Your task to perform on an android device: see creations saved in the google photos Image 0: 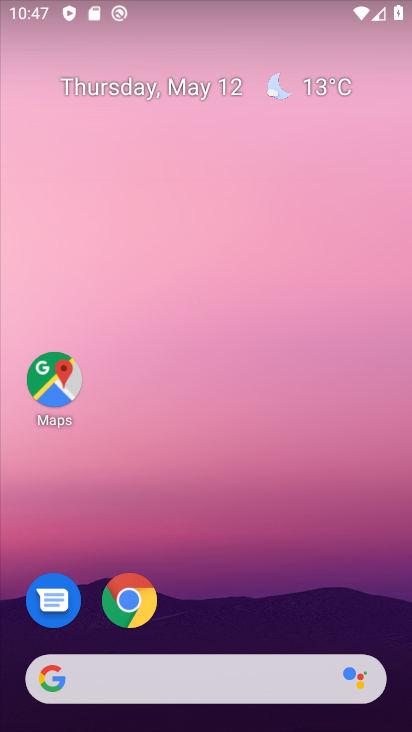
Step 0: drag from (378, 624) to (329, 63)
Your task to perform on an android device: see creations saved in the google photos Image 1: 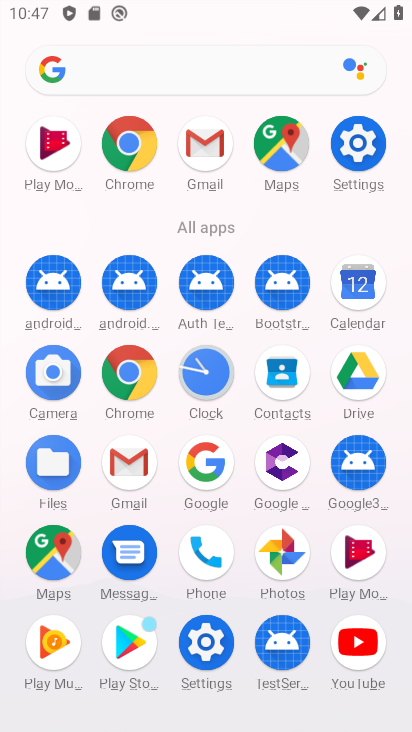
Step 1: click (283, 555)
Your task to perform on an android device: see creations saved in the google photos Image 2: 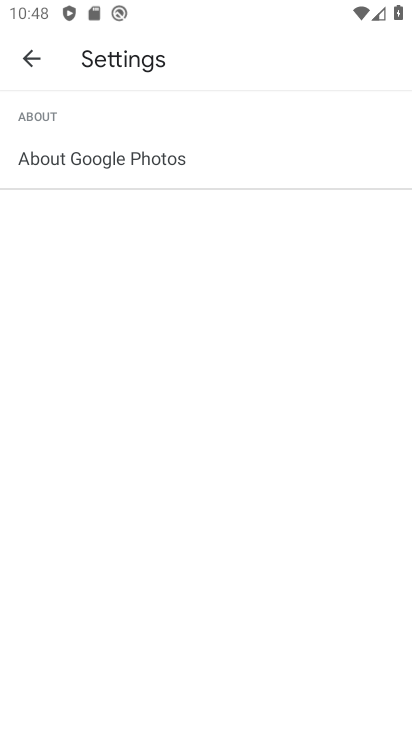
Step 2: press home button
Your task to perform on an android device: see creations saved in the google photos Image 3: 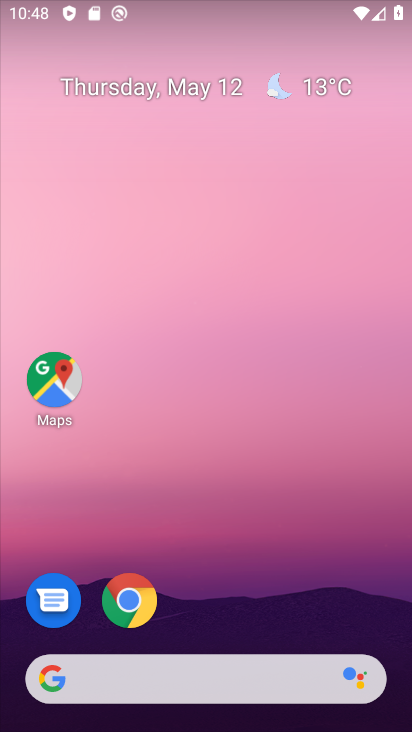
Step 3: drag from (365, 612) to (357, 127)
Your task to perform on an android device: see creations saved in the google photos Image 4: 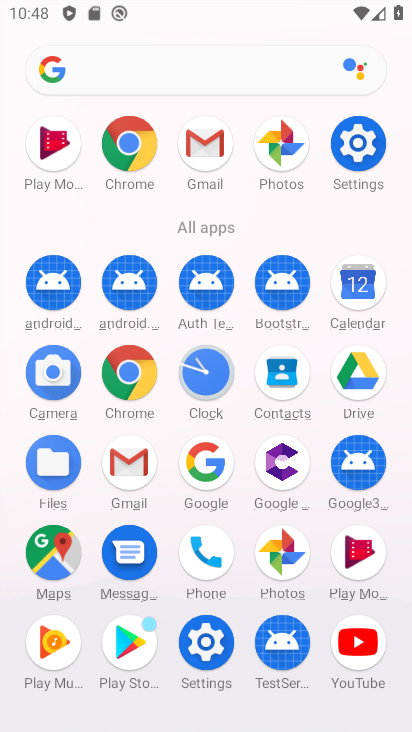
Step 4: click (275, 548)
Your task to perform on an android device: see creations saved in the google photos Image 5: 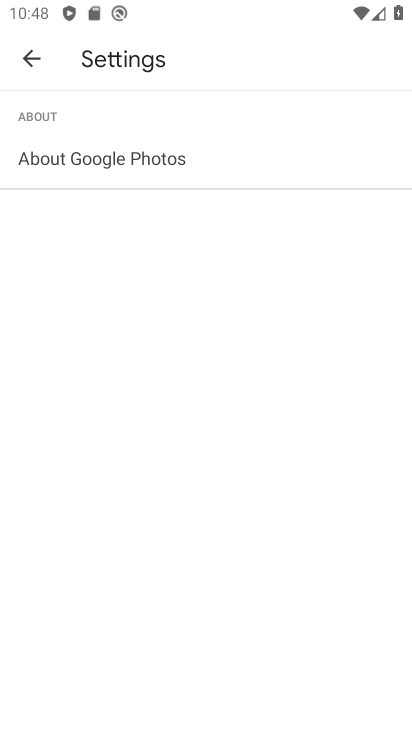
Step 5: task complete